Your task to perform on an android device: turn off javascript in the chrome app Image 0: 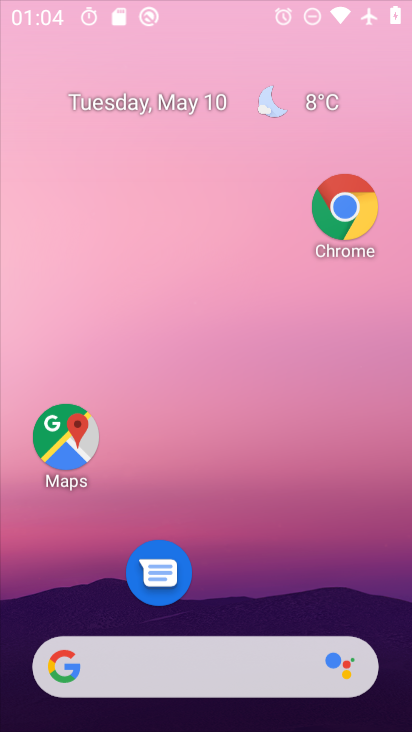
Step 0: drag from (274, 178) to (282, 115)
Your task to perform on an android device: turn off javascript in the chrome app Image 1: 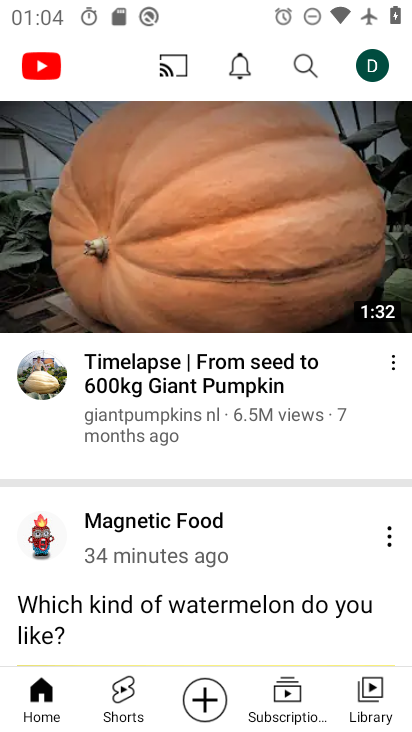
Step 1: press home button
Your task to perform on an android device: turn off javascript in the chrome app Image 2: 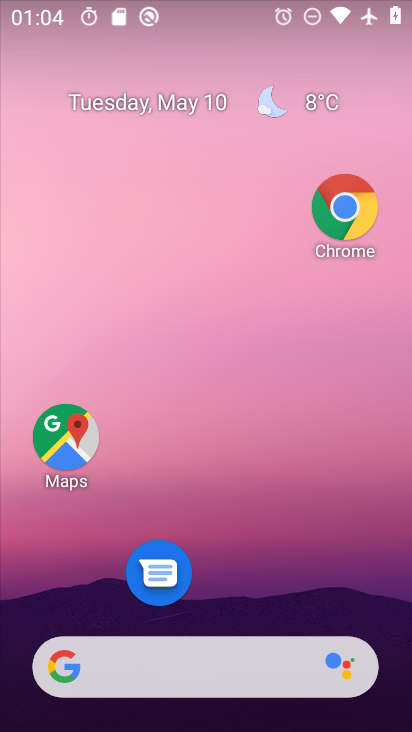
Step 2: click (345, 210)
Your task to perform on an android device: turn off javascript in the chrome app Image 3: 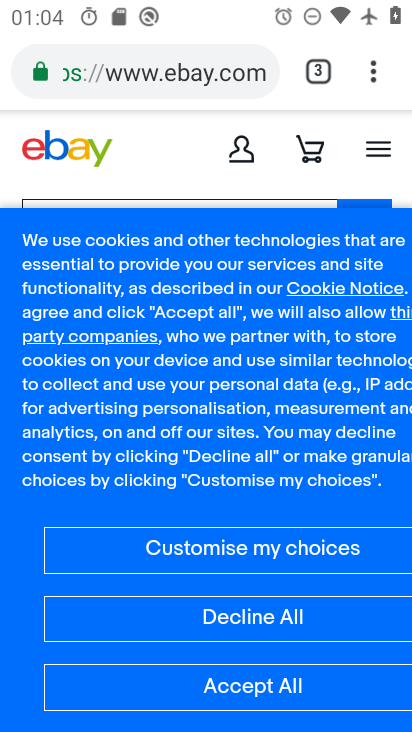
Step 3: drag from (375, 70) to (173, 582)
Your task to perform on an android device: turn off javascript in the chrome app Image 4: 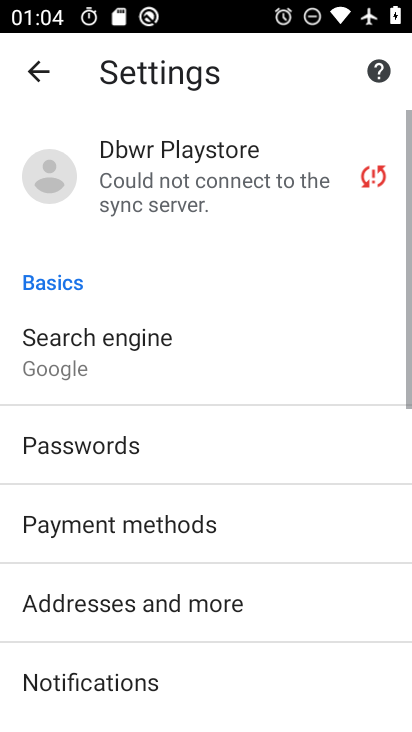
Step 4: drag from (277, 641) to (325, 154)
Your task to perform on an android device: turn off javascript in the chrome app Image 5: 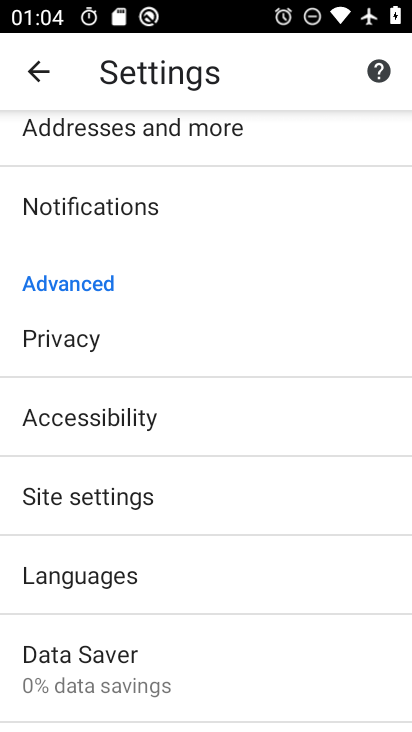
Step 5: drag from (244, 594) to (294, 191)
Your task to perform on an android device: turn off javascript in the chrome app Image 6: 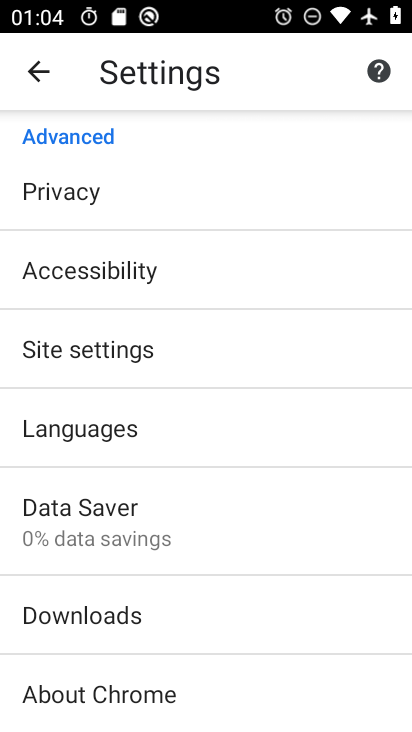
Step 6: click (204, 517)
Your task to perform on an android device: turn off javascript in the chrome app Image 7: 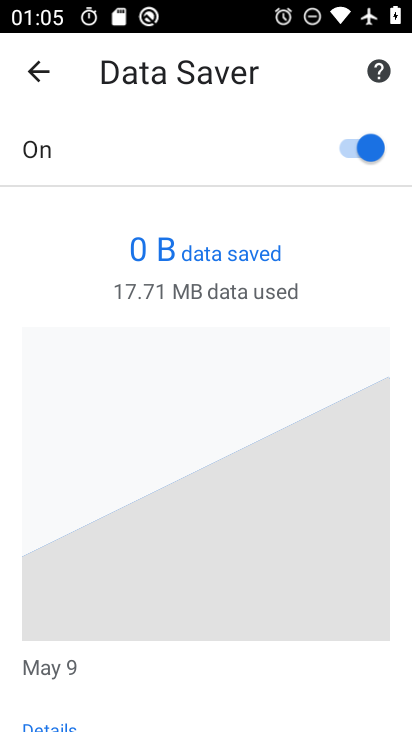
Step 7: click (353, 141)
Your task to perform on an android device: turn off javascript in the chrome app Image 8: 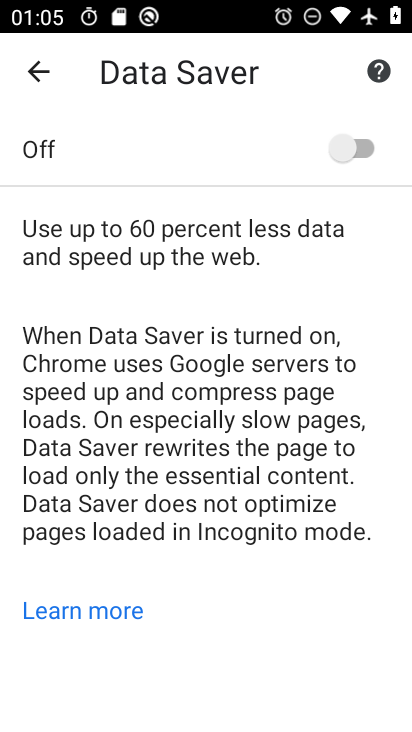
Step 8: task complete